Your task to perform on an android device: set default search engine in the chrome app Image 0: 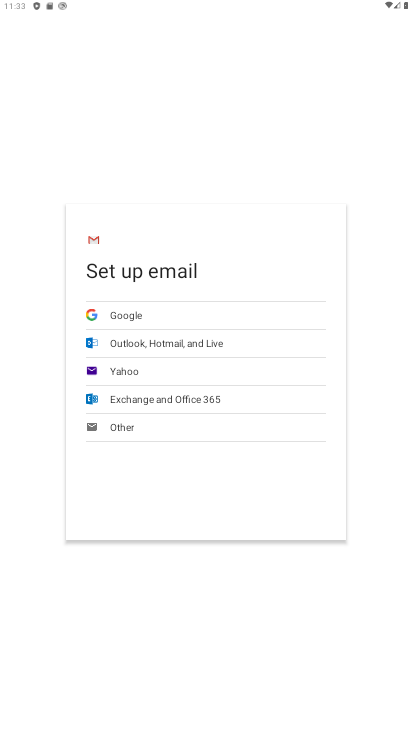
Step 0: press home button
Your task to perform on an android device: set default search engine in the chrome app Image 1: 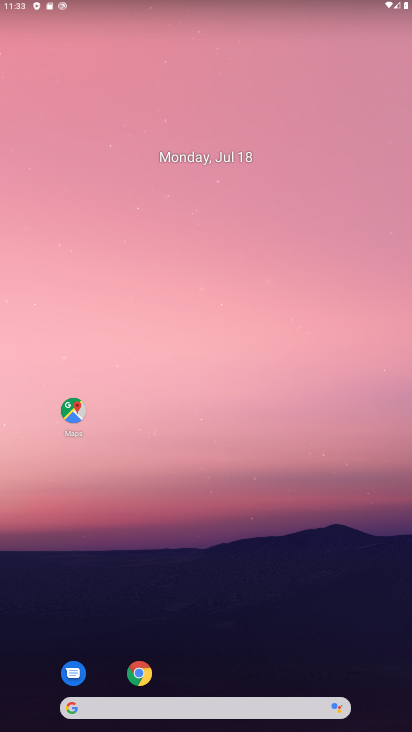
Step 1: click (144, 679)
Your task to perform on an android device: set default search engine in the chrome app Image 2: 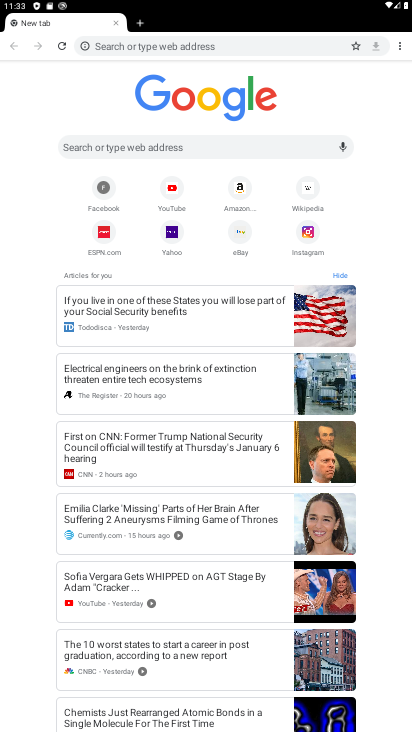
Step 2: click (407, 48)
Your task to perform on an android device: set default search engine in the chrome app Image 3: 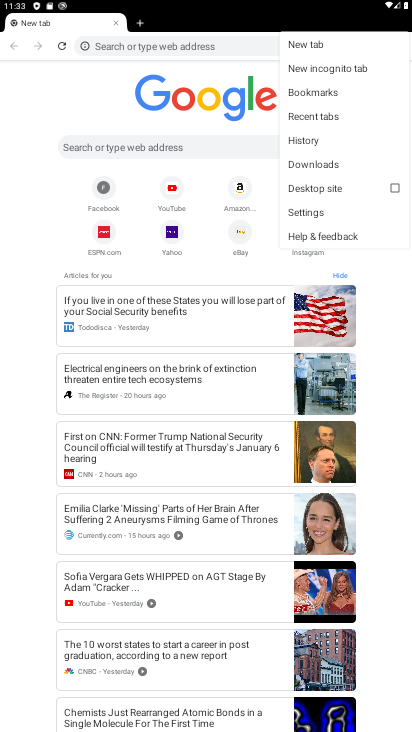
Step 3: click (66, 80)
Your task to perform on an android device: set default search engine in the chrome app Image 4: 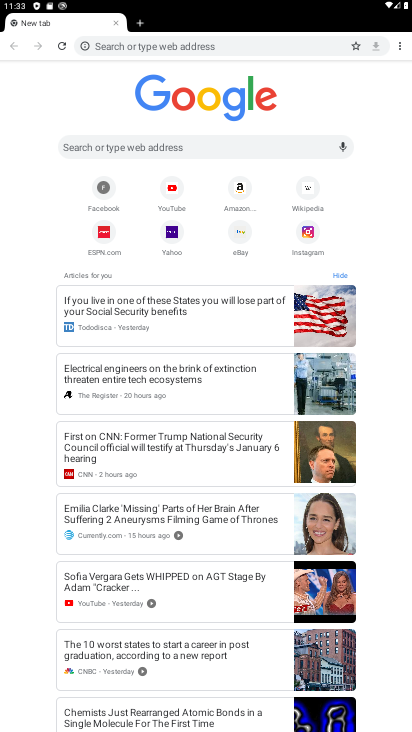
Step 4: click (404, 51)
Your task to perform on an android device: set default search engine in the chrome app Image 5: 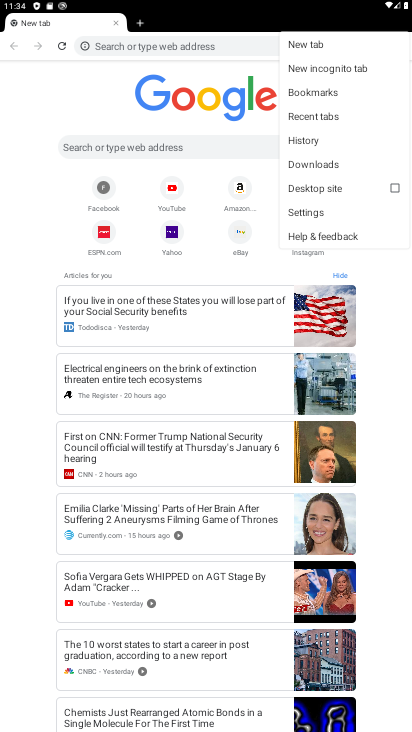
Step 5: click (297, 206)
Your task to perform on an android device: set default search engine in the chrome app Image 6: 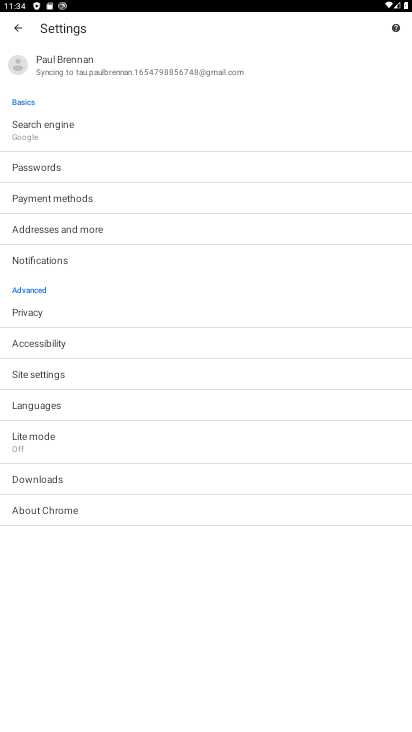
Step 6: click (37, 119)
Your task to perform on an android device: set default search engine in the chrome app Image 7: 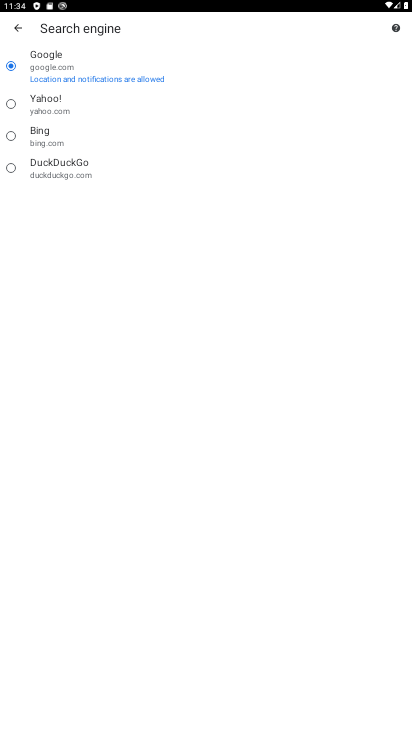
Step 7: click (67, 168)
Your task to perform on an android device: set default search engine in the chrome app Image 8: 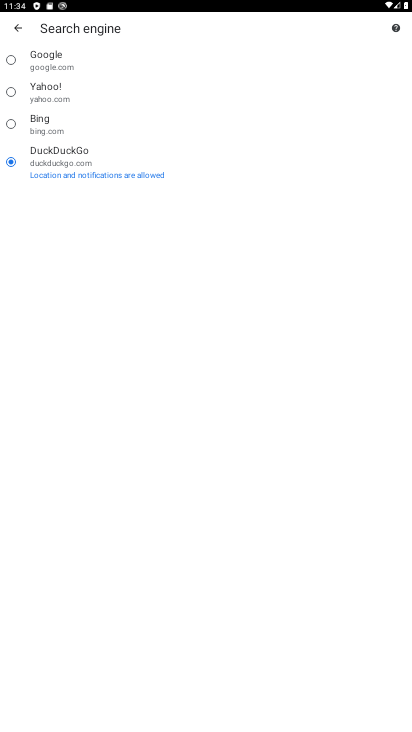
Step 8: task complete